Your task to perform on an android device: see creations saved in the google photos Image 0: 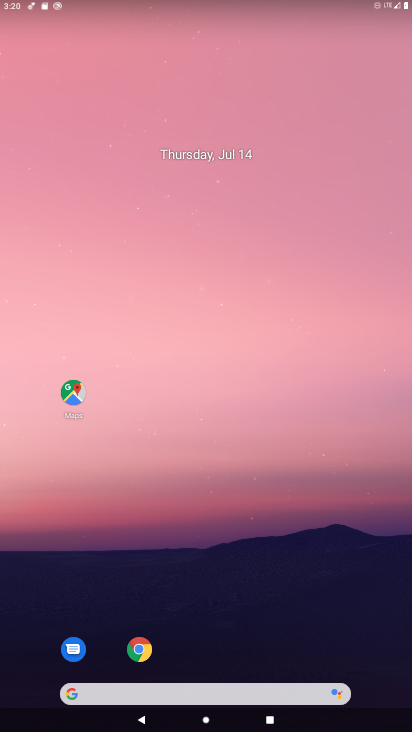
Step 0: drag from (244, 609) to (249, 303)
Your task to perform on an android device: see creations saved in the google photos Image 1: 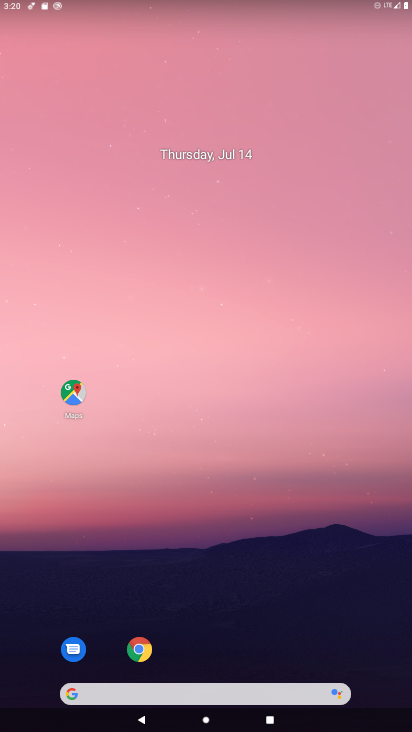
Step 1: drag from (300, 645) to (271, 154)
Your task to perform on an android device: see creations saved in the google photos Image 2: 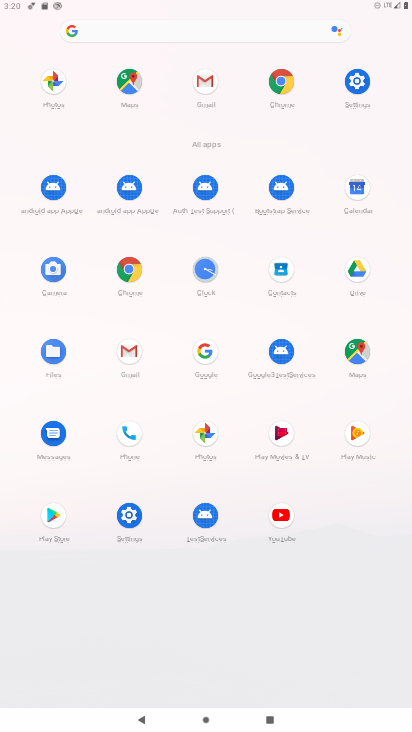
Step 2: click (210, 428)
Your task to perform on an android device: see creations saved in the google photos Image 3: 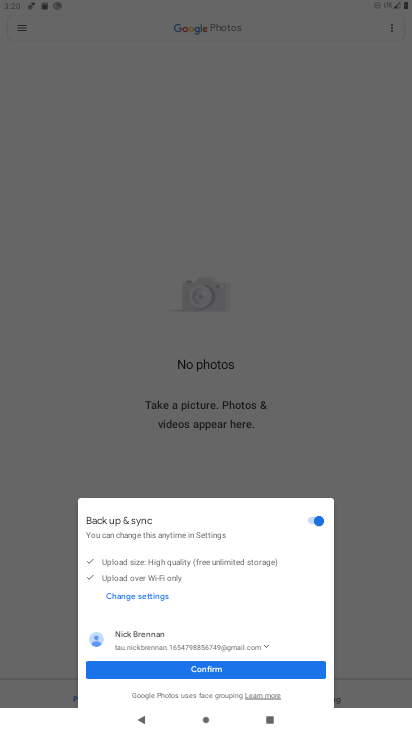
Step 3: click (217, 667)
Your task to perform on an android device: see creations saved in the google photos Image 4: 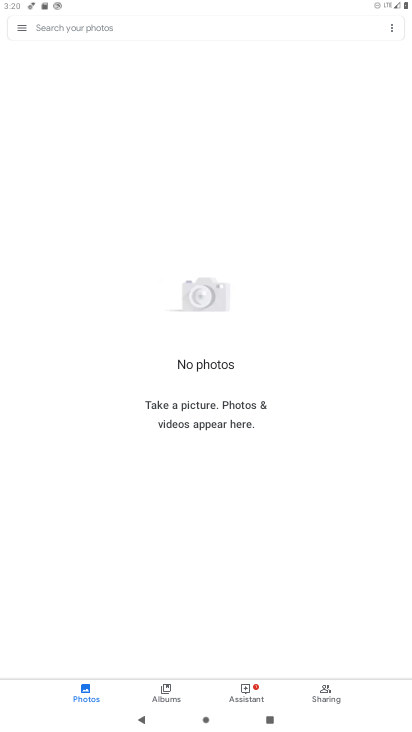
Step 4: click (164, 693)
Your task to perform on an android device: see creations saved in the google photos Image 5: 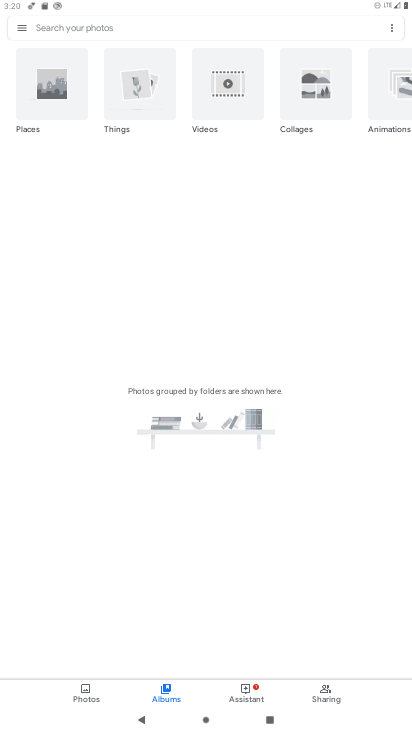
Step 5: task complete